Your task to perform on an android device: set the stopwatch Image 0: 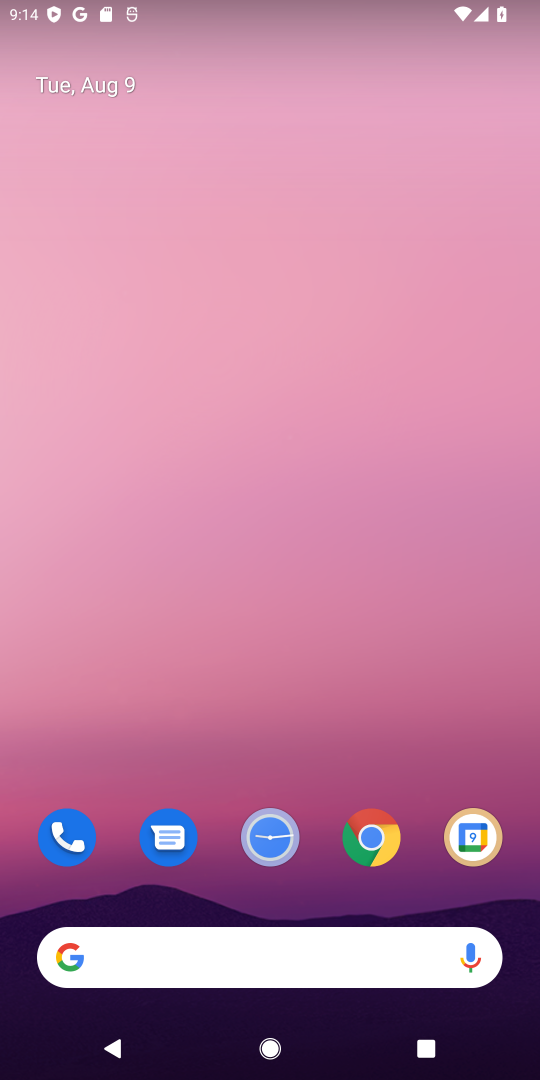
Step 0: drag from (319, 918) to (338, 157)
Your task to perform on an android device: set the stopwatch Image 1: 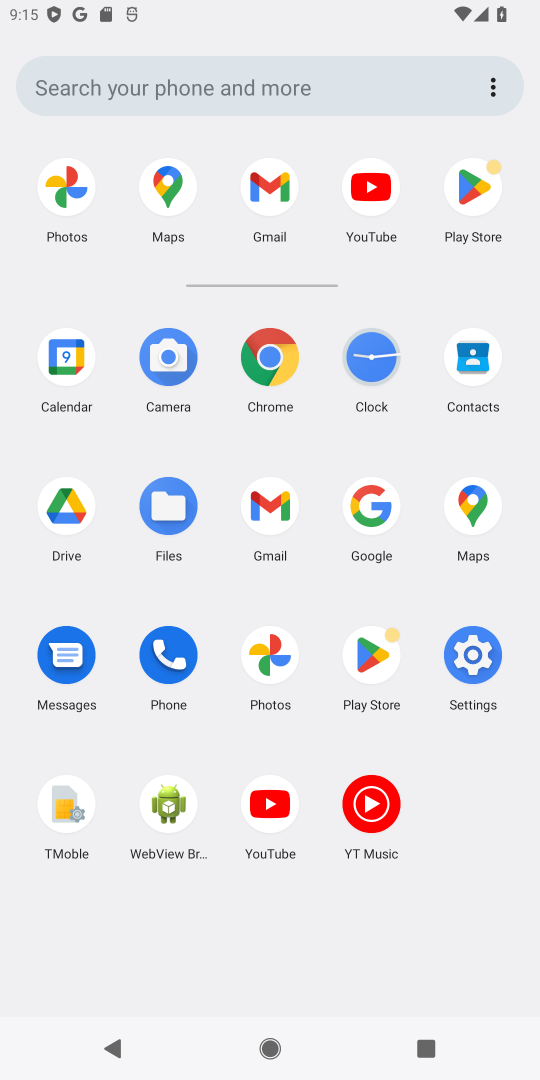
Step 1: click (372, 359)
Your task to perform on an android device: set the stopwatch Image 2: 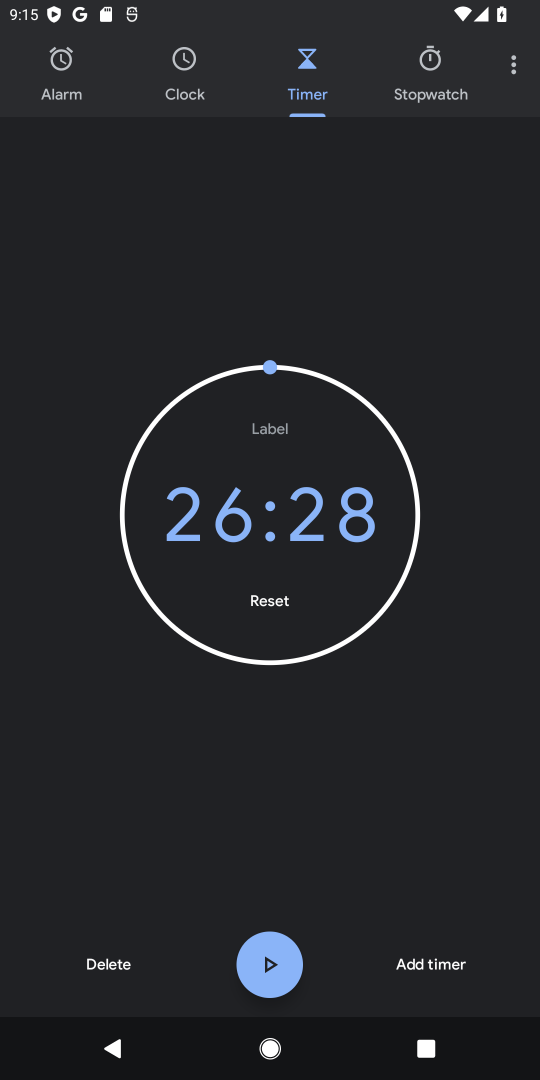
Step 2: click (432, 69)
Your task to perform on an android device: set the stopwatch Image 3: 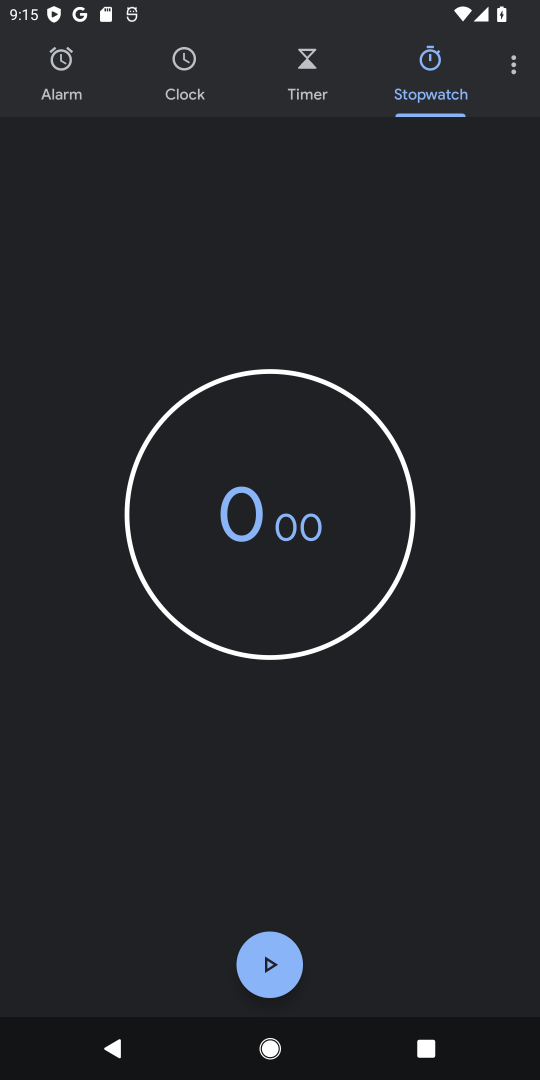
Step 3: task complete